Your task to perform on an android device: Check the weather Image 0: 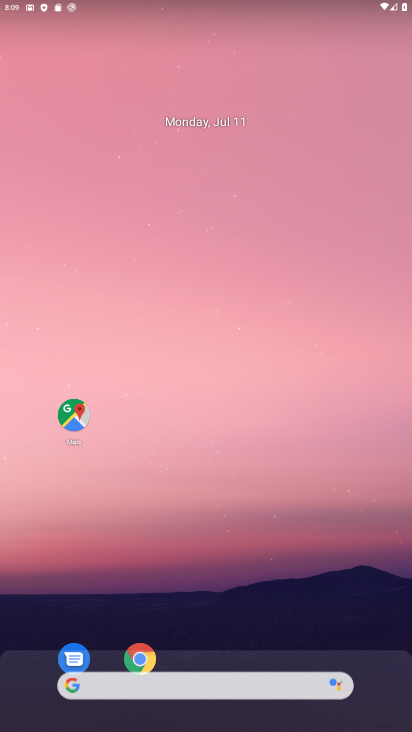
Step 0: drag from (188, 686) to (335, 111)
Your task to perform on an android device: Check the weather Image 1: 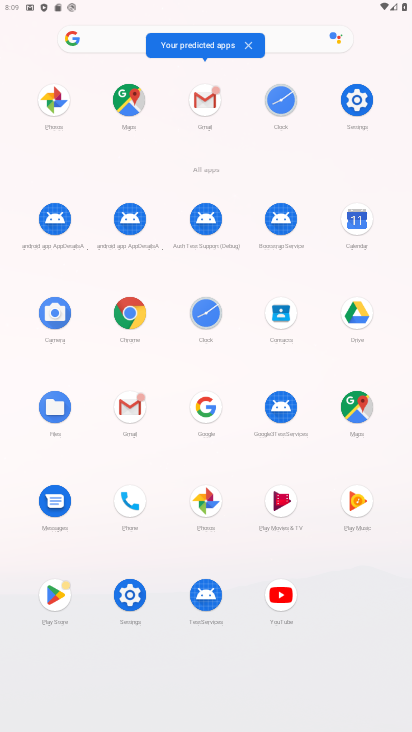
Step 1: click (208, 403)
Your task to perform on an android device: Check the weather Image 2: 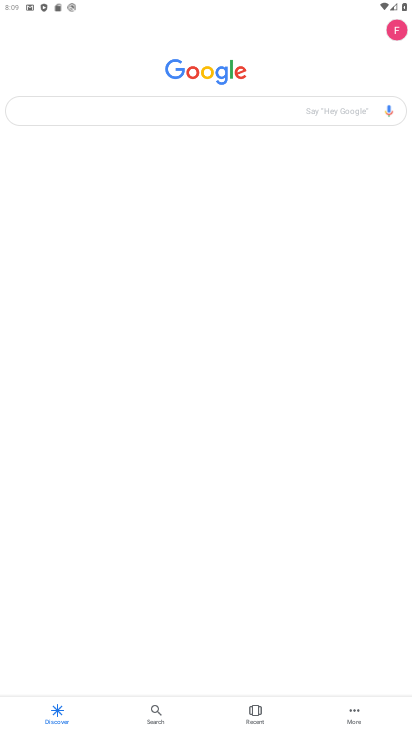
Step 2: click (180, 120)
Your task to perform on an android device: Check the weather Image 3: 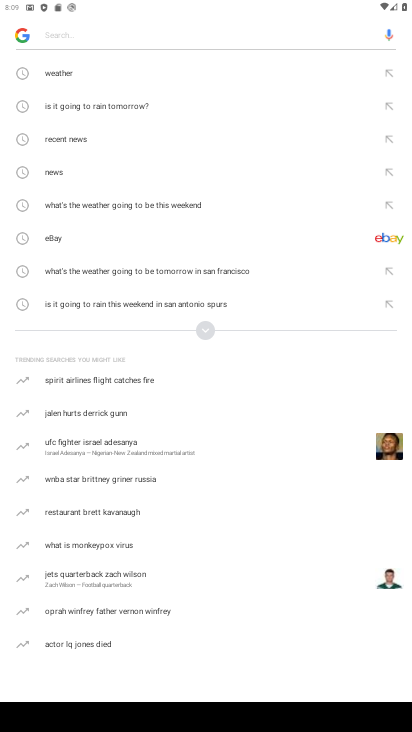
Step 3: type "weather"
Your task to perform on an android device: Check the weather Image 4: 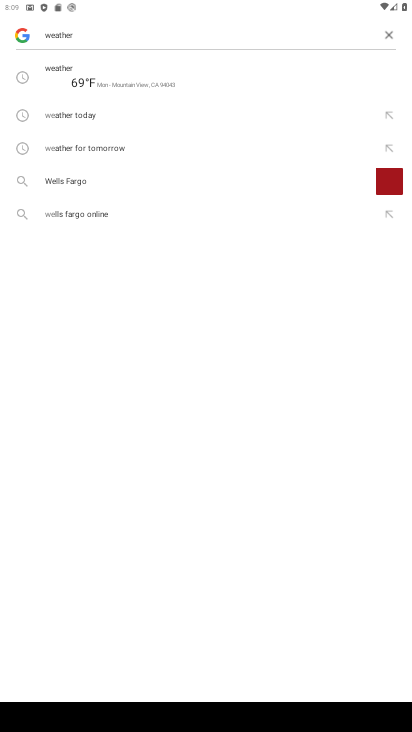
Step 4: click (157, 94)
Your task to perform on an android device: Check the weather Image 5: 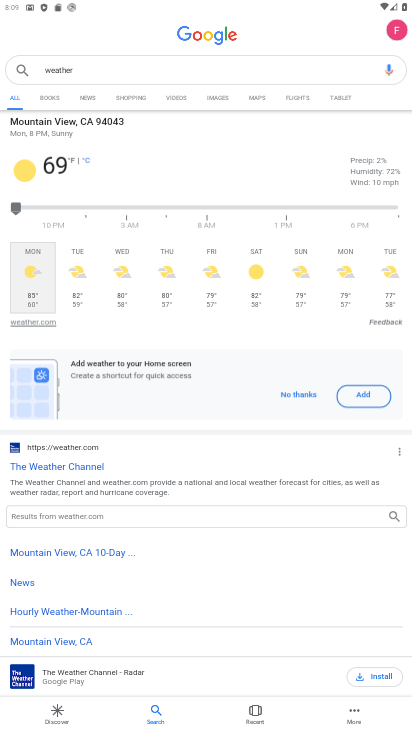
Step 5: task complete